Your task to perform on an android device: turn off picture-in-picture Image 0: 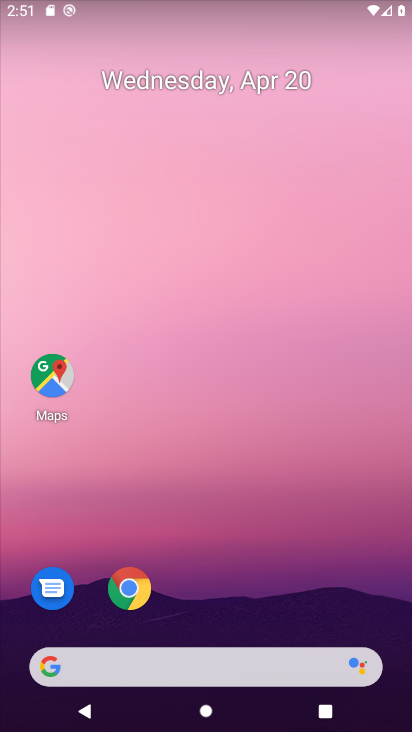
Step 0: drag from (278, 602) to (279, 169)
Your task to perform on an android device: turn off picture-in-picture Image 1: 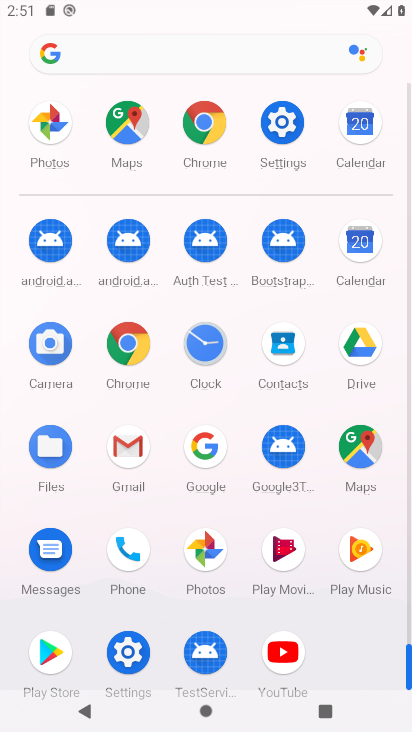
Step 1: click (273, 122)
Your task to perform on an android device: turn off picture-in-picture Image 2: 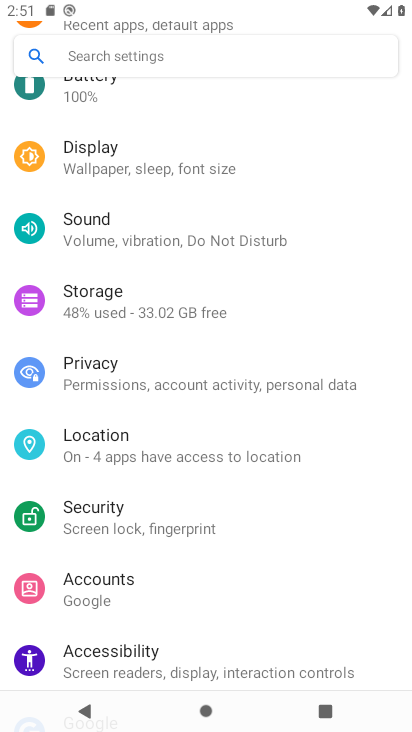
Step 2: drag from (354, 566) to (362, 414)
Your task to perform on an android device: turn off picture-in-picture Image 3: 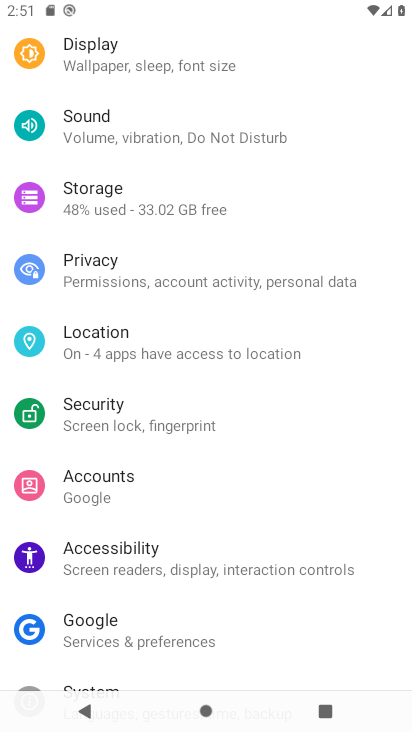
Step 3: drag from (345, 530) to (345, 390)
Your task to perform on an android device: turn off picture-in-picture Image 4: 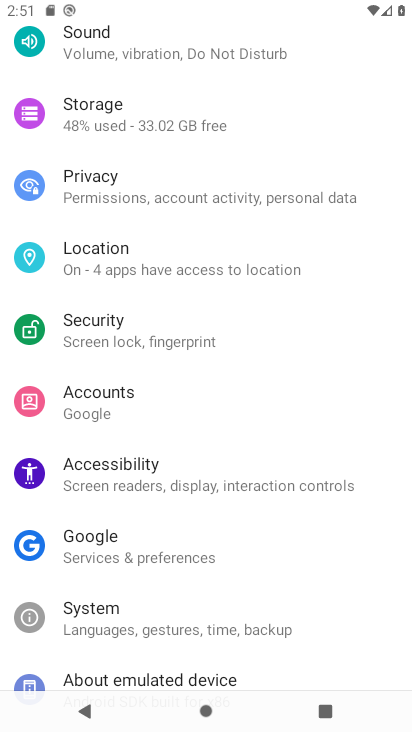
Step 4: drag from (370, 331) to (364, 459)
Your task to perform on an android device: turn off picture-in-picture Image 5: 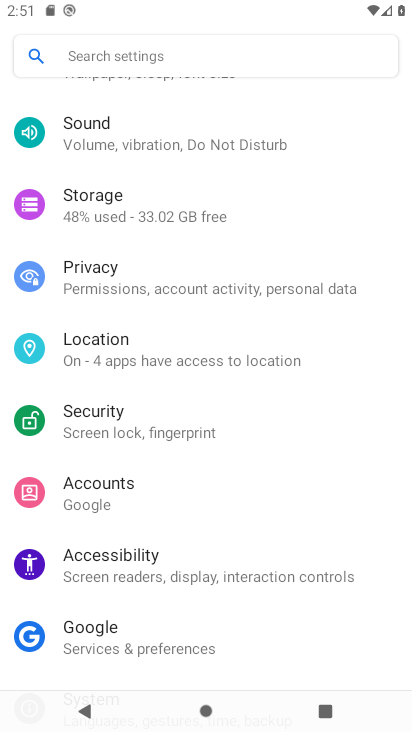
Step 5: drag from (373, 367) to (374, 450)
Your task to perform on an android device: turn off picture-in-picture Image 6: 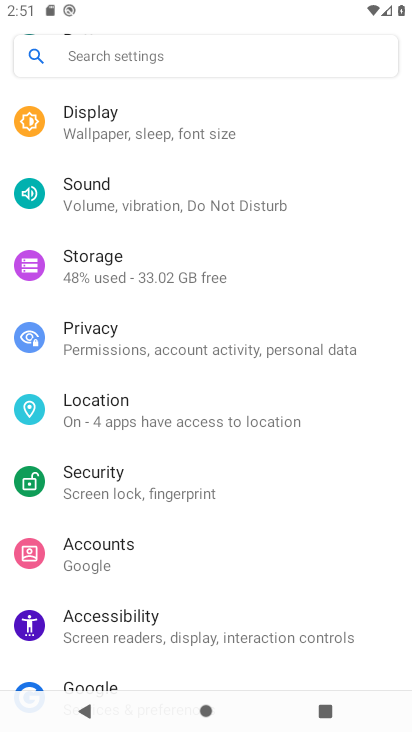
Step 6: drag from (382, 308) to (362, 458)
Your task to perform on an android device: turn off picture-in-picture Image 7: 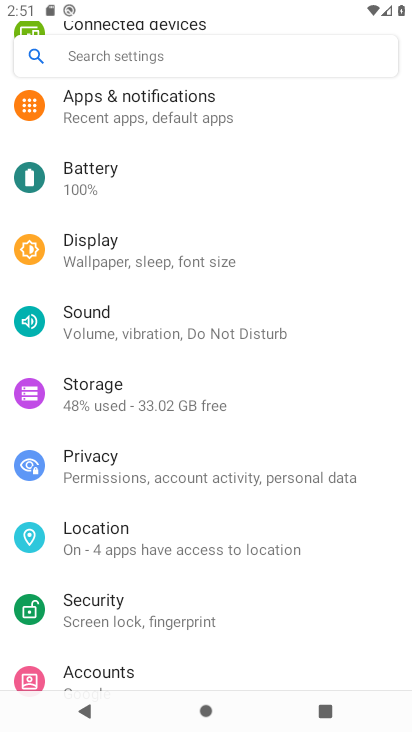
Step 7: drag from (334, 444) to (337, 558)
Your task to perform on an android device: turn off picture-in-picture Image 8: 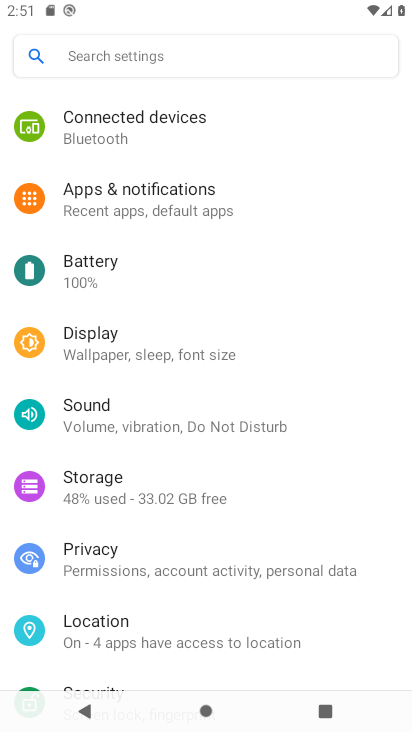
Step 8: drag from (342, 258) to (342, 423)
Your task to perform on an android device: turn off picture-in-picture Image 9: 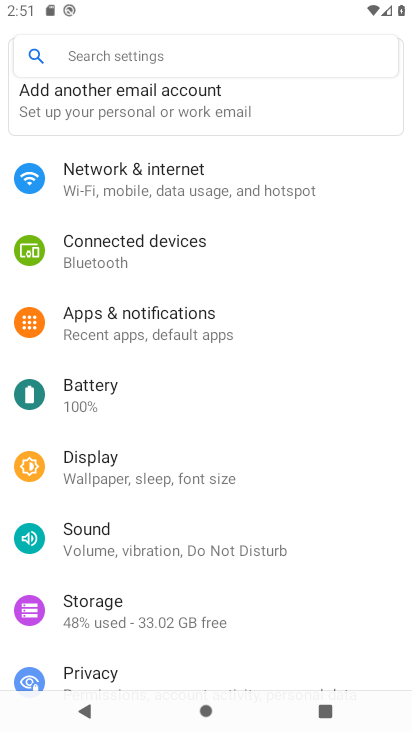
Step 9: click (183, 300)
Your task to perform on an android device: turn off picture-in-picture Image 10: 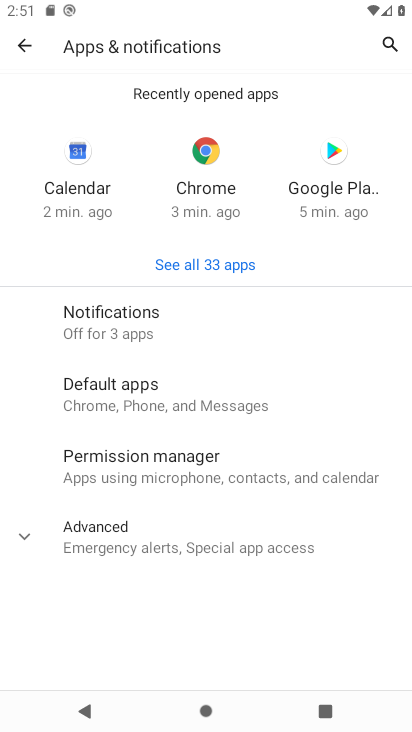
Step 10: click (202, 544)
Your task to perform on an android device: turn off picture-in-picture Image 11: 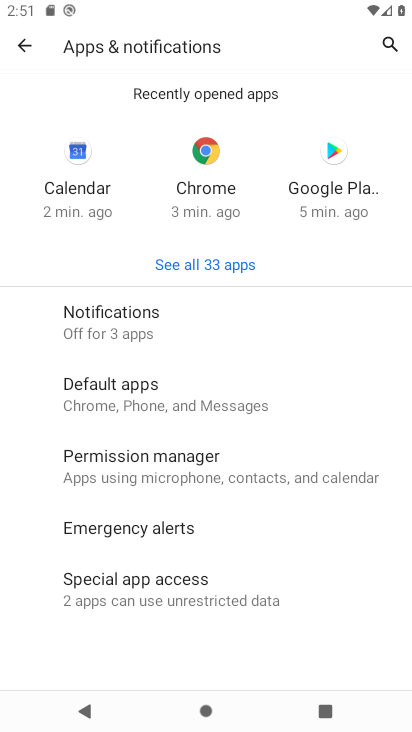
Step 11: click (162, 593)
Your task to perform on an android device: turn off picture-in-picture Image 12: 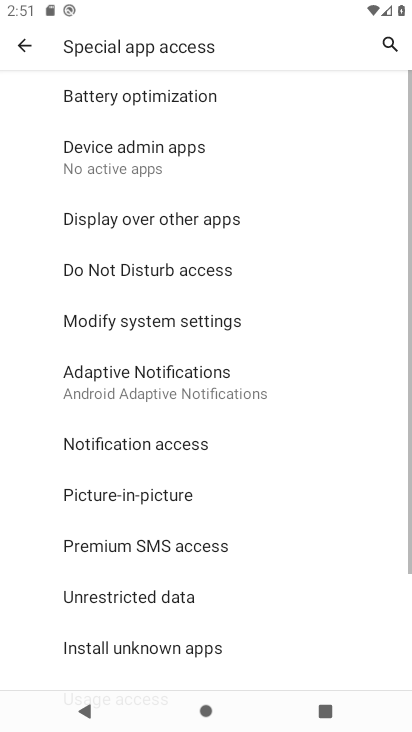
Step 12: click (152, 504)
Your task to perform on an android device: turn off picture-in-picture Image 13: 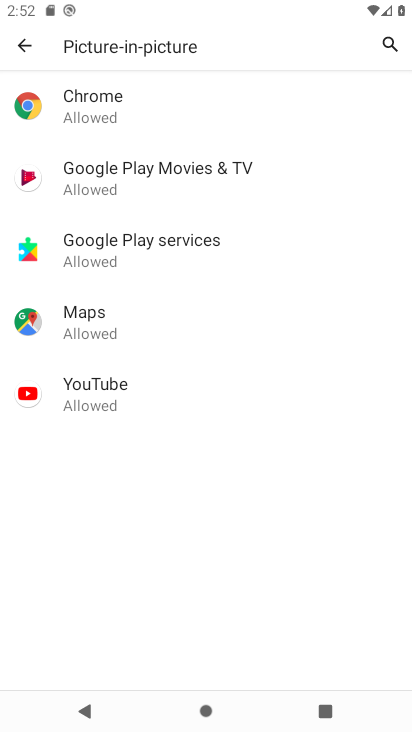
Step 13: click (102, 395)
Your task to perform on an android device: turn off picture-in-picture Image 14: 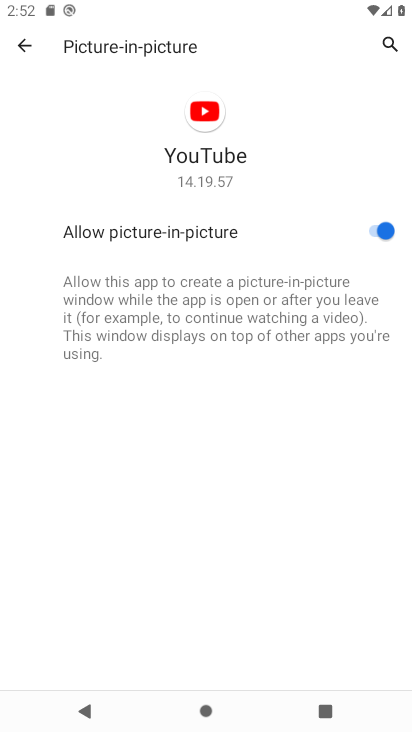
Step 14: click (384, 230)
Your task to perform on an android device: turn off picture-in-picture Image 15: 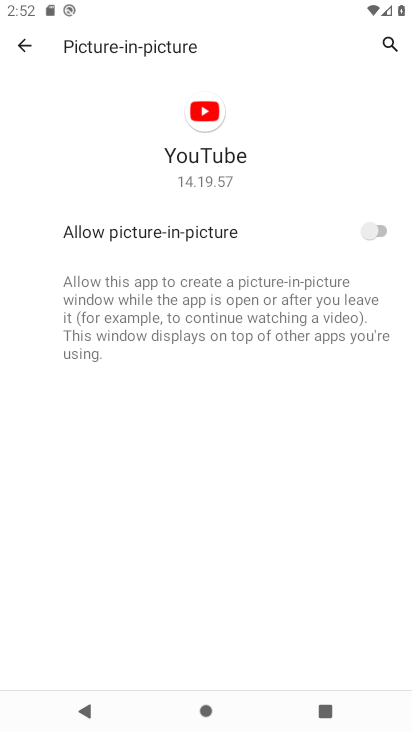
Step 15: task complete